Your task to perform on an android device: manage bookmarks in the chrome app Image 0: 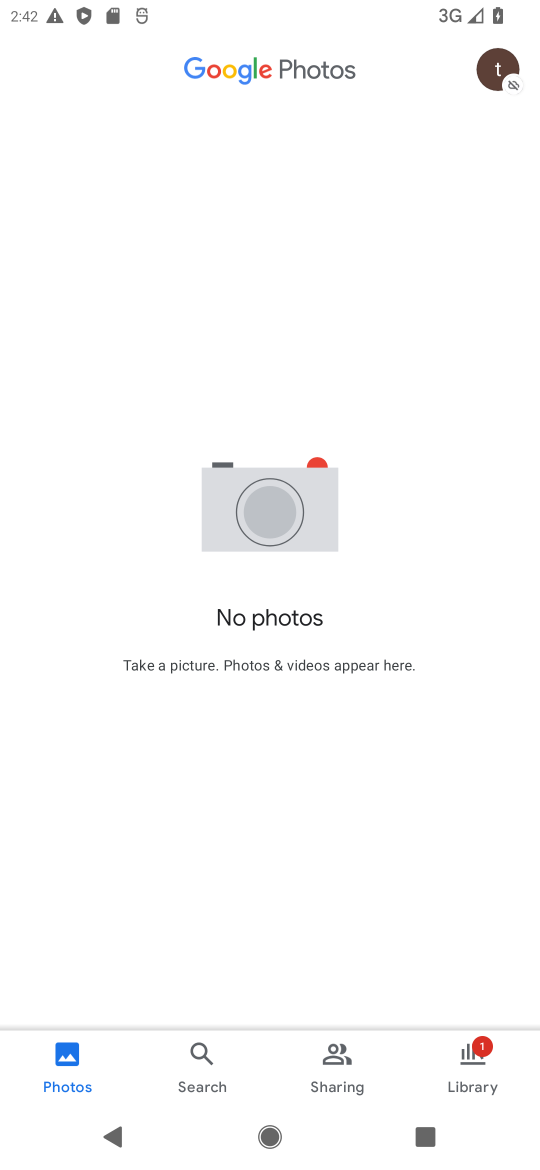
Step 0: task complete